Your task to perform on an android device: change notification settings in the gmail app Image 0: 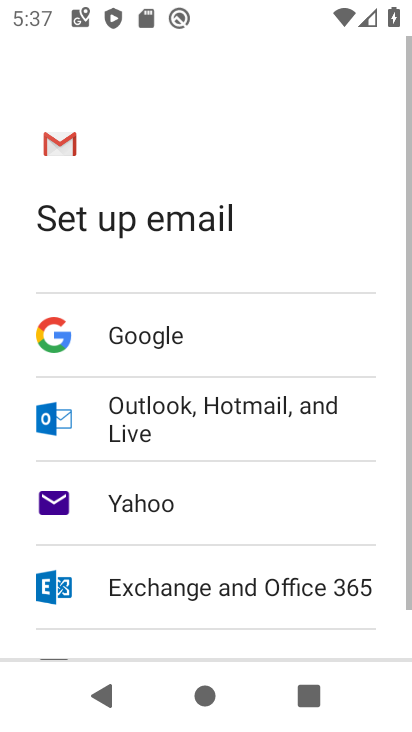
Step 0: press home button
Your task to perform on an android device: change notification settings in the gmail app Image 1: 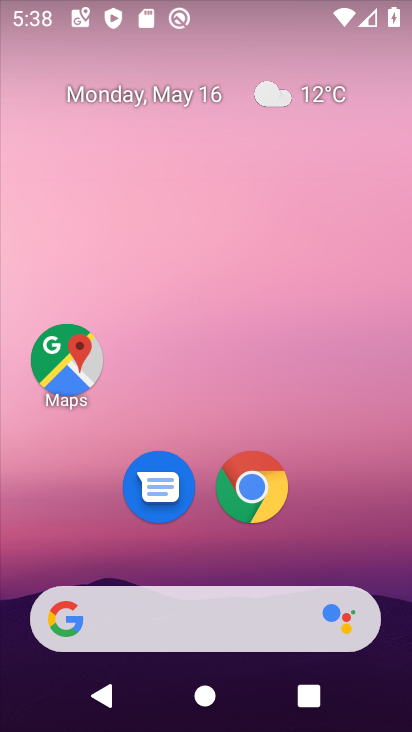
Step 1: drag from (318, 507) to (295, 89)
Your task to perform on an android device: change notification settings in the gmail app Image 2: 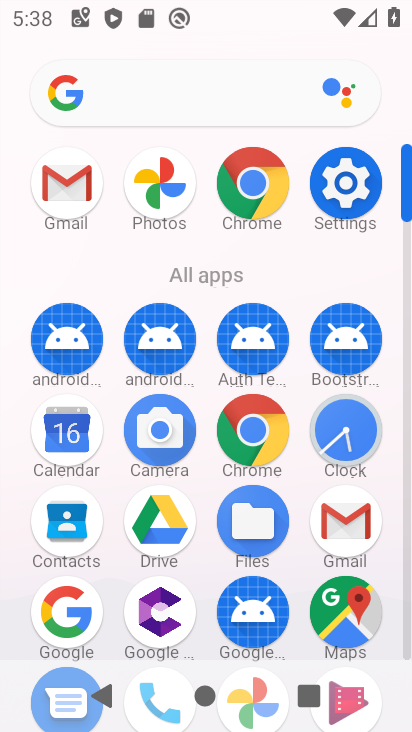
Step 2: click (54, 187)
Your task to perform on an android device: change notification settings in the gmail app Image 3: 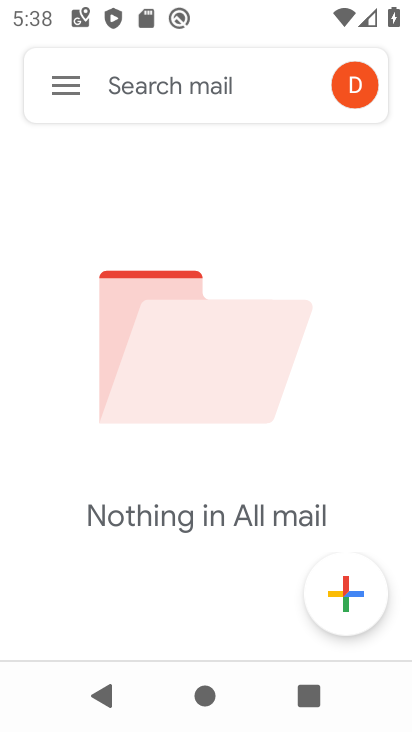
Step 3: click (71, 81)
Your task to perform on an android device: change notification settings in the gmail app Image 4: 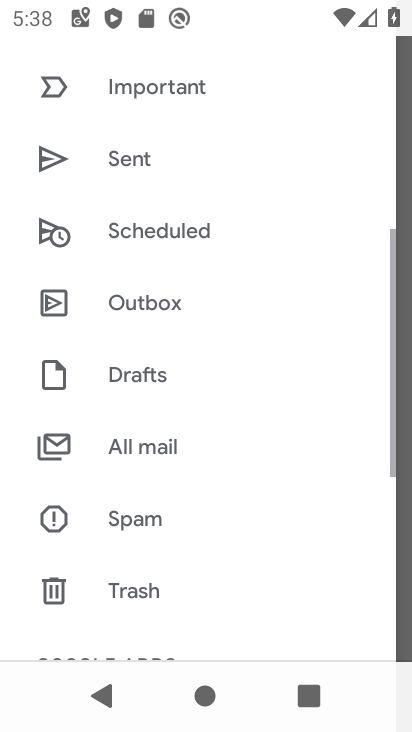
Step 4: drag from (227, 541) to (209, 26)
Your task to perform on an android device: change notification settings in the gmail app Image 5: 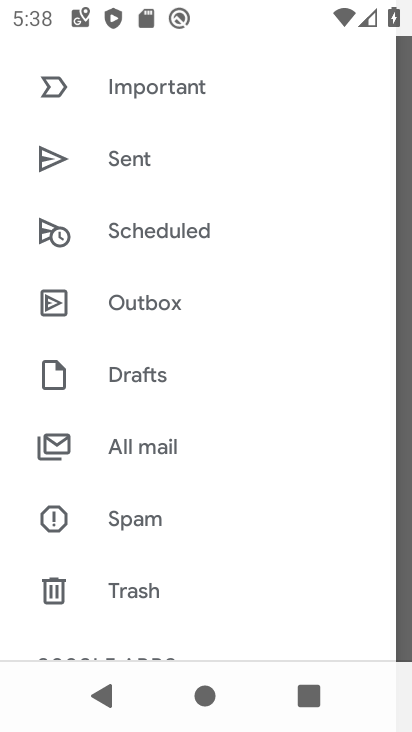
Step 5: drag from (143, 539) to (248, 12)
Your task to perform on an android device: change notification settings in the gmail app Image 6: 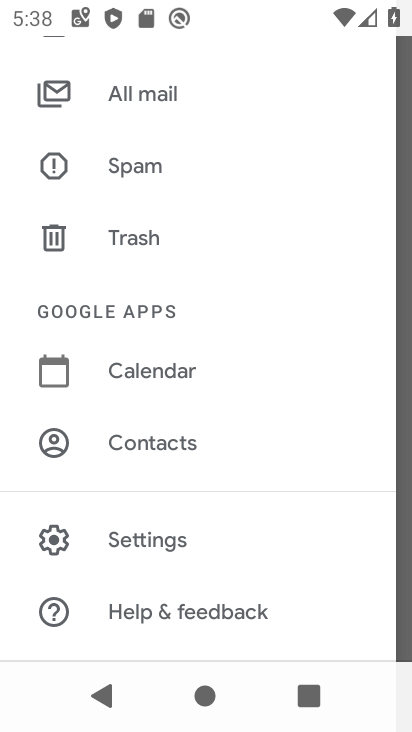
Step 6: click (165, 536)
Your task to perform on an android device: change notification settings in the gmail app Image 7: 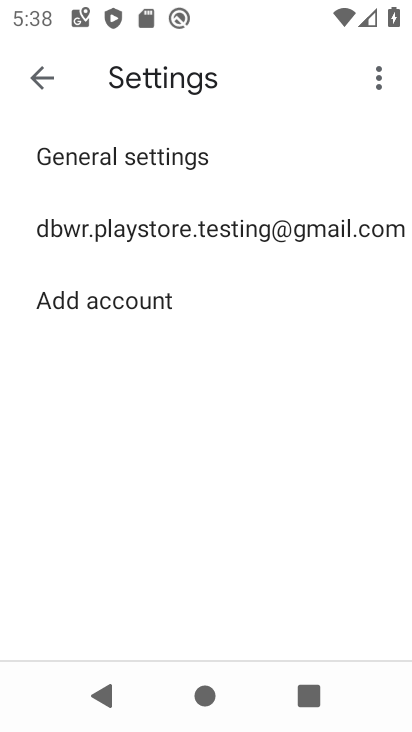
Step 7: click (241, 227)
Your task to perform on an android device: change notification settings in the gmail app Image 8: 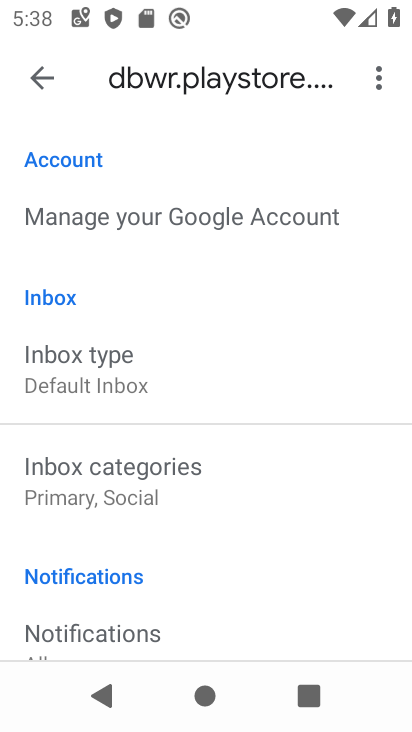
Step 8: drag from (183, 571) to (198, 246)
Your task to perform on an android device: change notification settings in the gmail app Image 9: 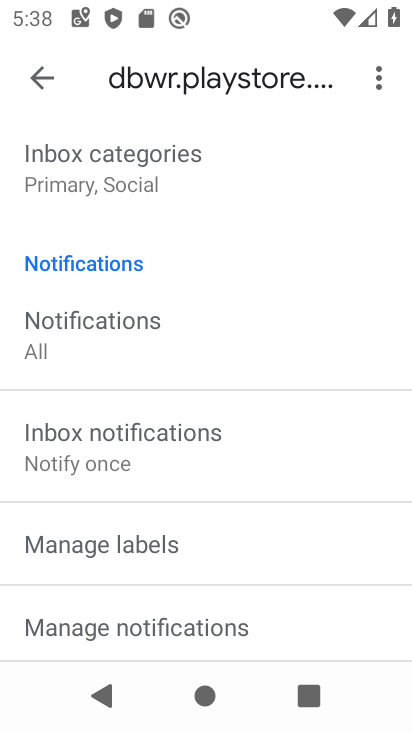
Step 9: drag from (264, 571) to (285, 372)
Your task to perform on an android device: change notification settings in the gmail app Image 10: 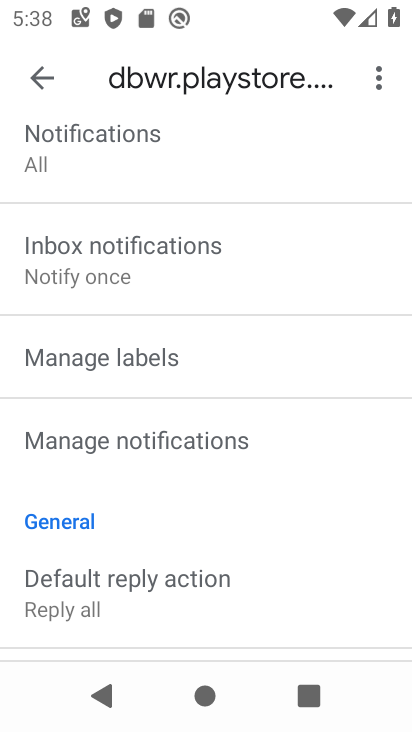
Step 10: click (233, 452)
Your task to perform on an android device: change notification settings in the gmail app Image 11: 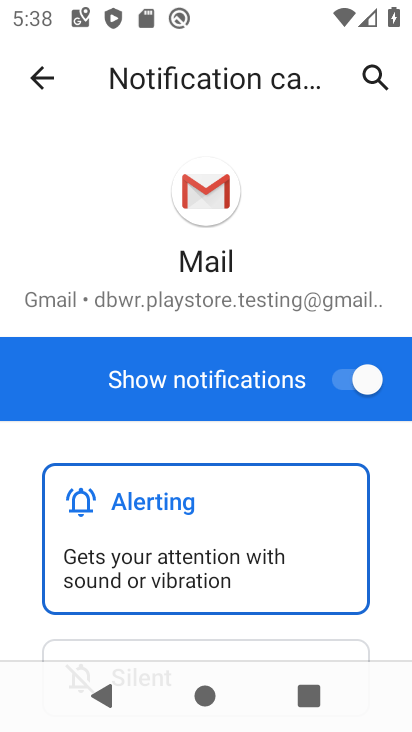
Step 11: click (349, 384)
Your task to perform on an android device: change notification settings in the gmail app Image 12: 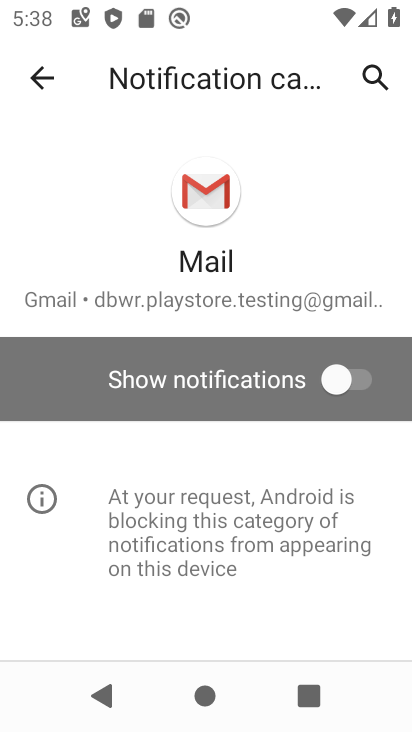
Step 12: task complete